Your task to perform on an android device: Go to network settings Image 0: 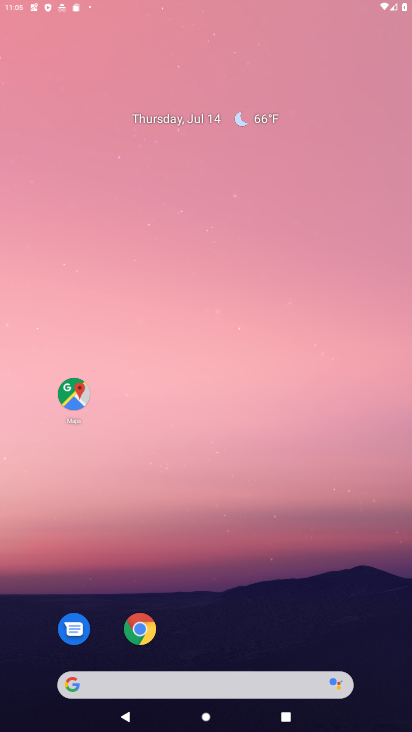
Step 0: press home button
Your task to perform on an android device: Go to network settings Image 1: 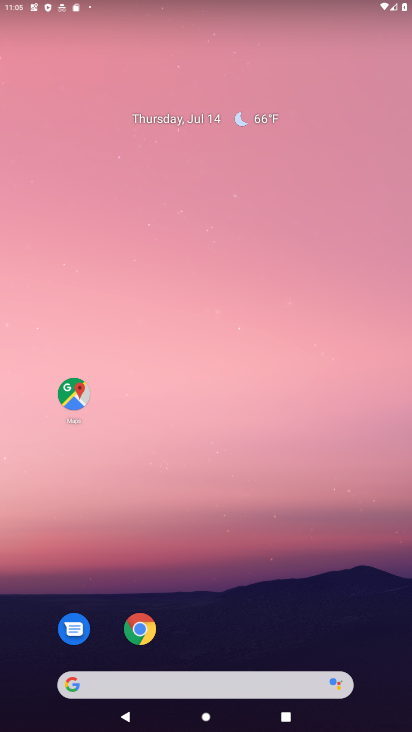
Step 1: drag from (270, 611) to (300, 89)
Your task to perform on an android device: Go to network settings Image 2: 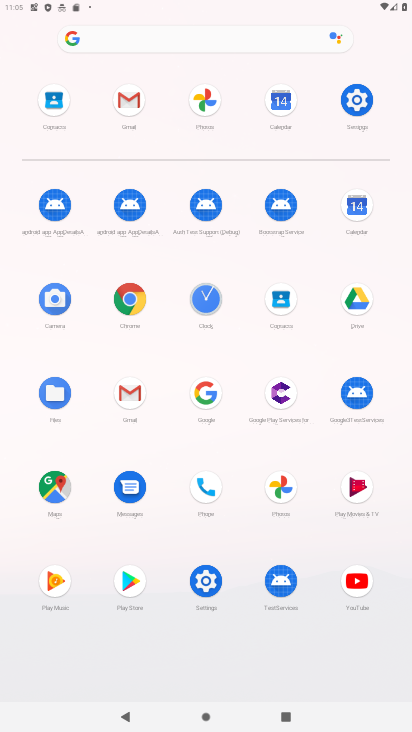
Step 2: click (349, 105)
Your task to perform on an android device: Go to network settings Image 3: 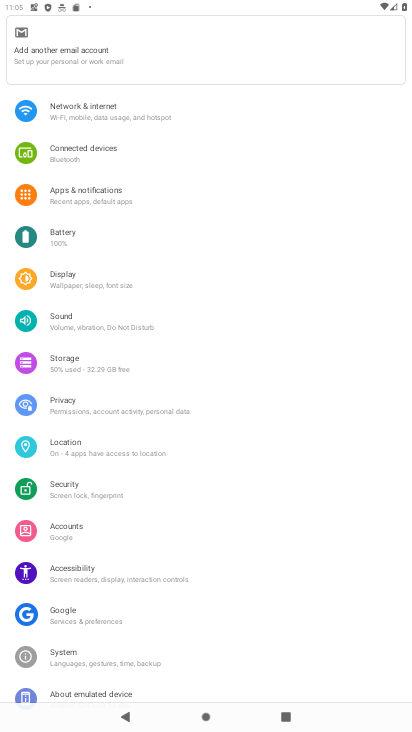
Step 3: click (97, 120)
Your task to perform on an android device: Go to network settings Image 4: 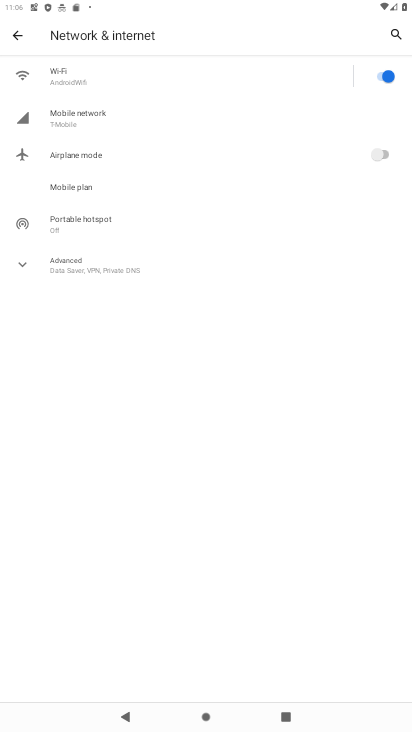
Step 4: click (97, 120)
Your task to perform on an android device: Go to network settings Image 5: 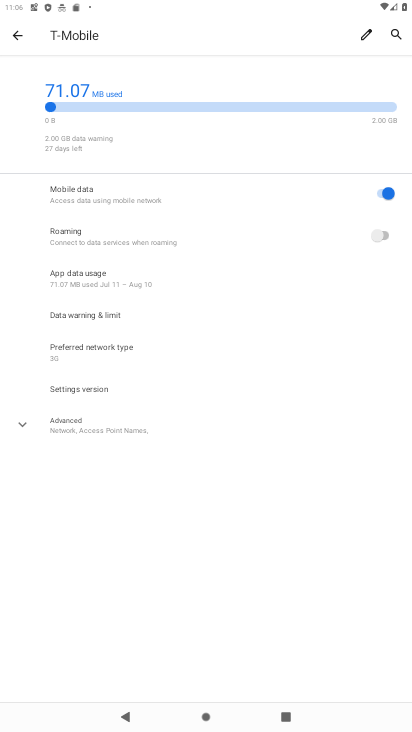
Step 5: task complete